Your task to perform on an android device: Do I have any events this weekend? Image 0: 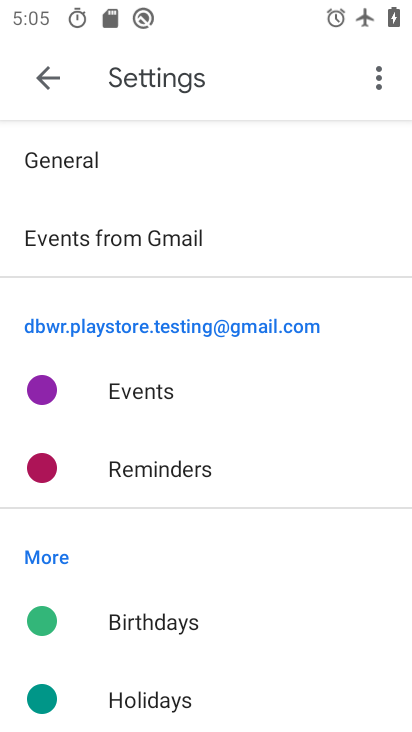
Step 0: press home button
Your task to perform on an android device: Do I have any events this weekend? Image 1: 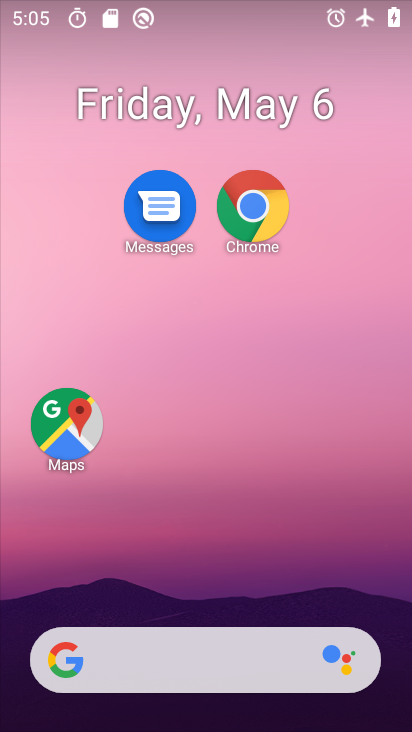
Step 1: drag from (174, 636) to (190, 416)
Your task to perform on an android device: Do I have any events this weekend? Image 2: 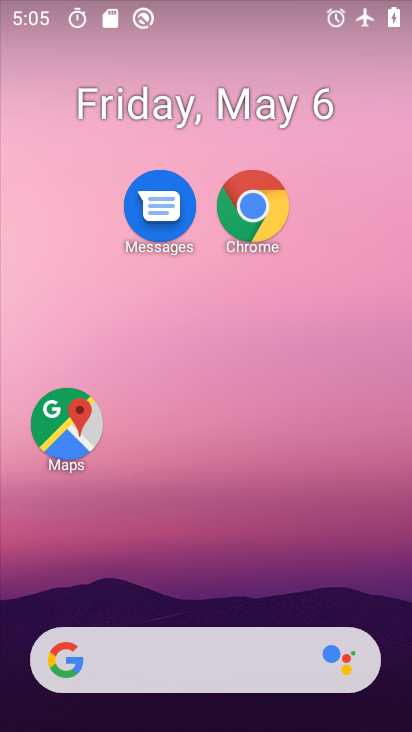
Step 2: drag from (242, 607) to (267, 125)
Your task to perform on an android device: Do I have any events this weekend? Image 3: 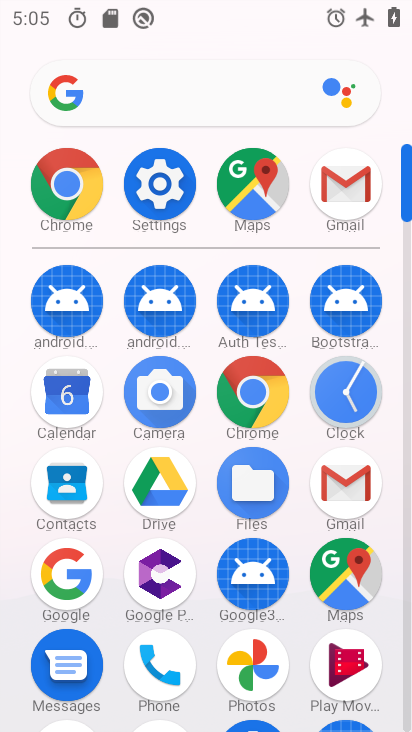
Step 3: click (64, 402)
Your task to perform on an android device: Do I have any events this weekend? Image 4: 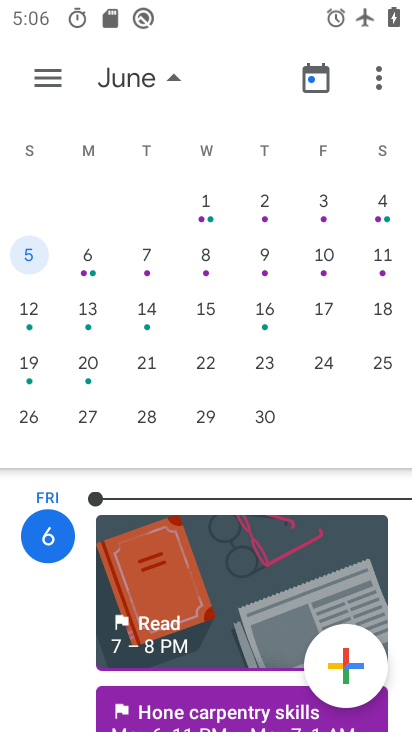
Step 4: click (157, 256)
Your task to perform on an android device: Do I have any events this weekend? Image 5: 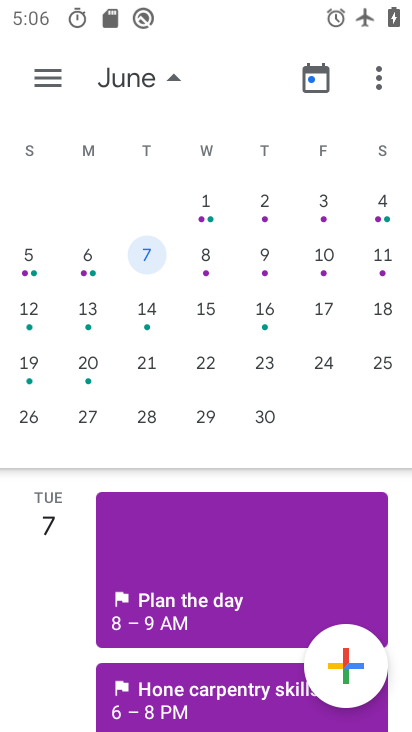
Step 5: drag from (46, 297) to (410, 312)
Your task to perform on an android device: Do I have any events this weekend? Image 6: 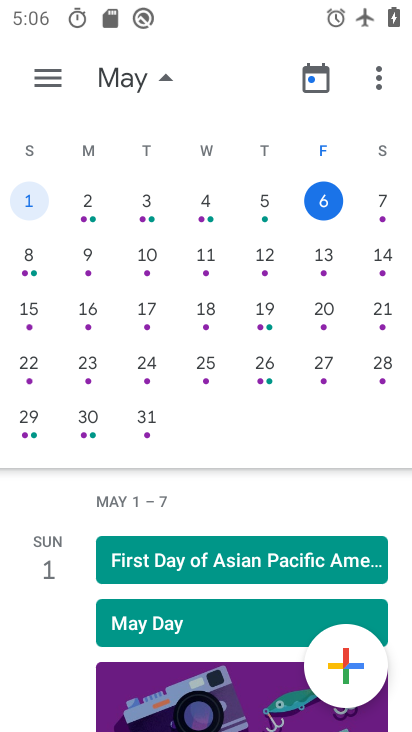
Step 6: click (389, 207)
Your task to perform on an android device: Do I have any events this weekend? Image 7: 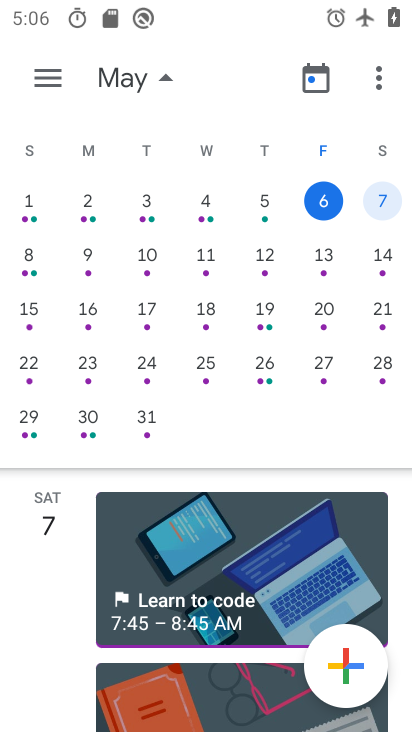
Step 7: task complete